Your task to perform on an android device: change the clock display to show seconds Image 0: 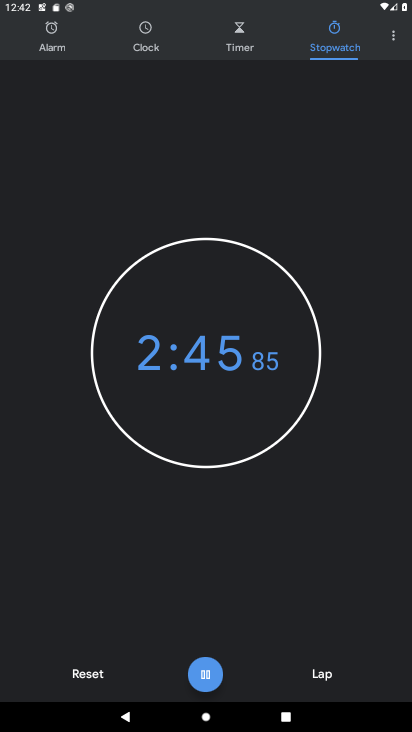
Step 0: press home button
Your task to perform on an android device: change the clock display to show seconds Image 1: 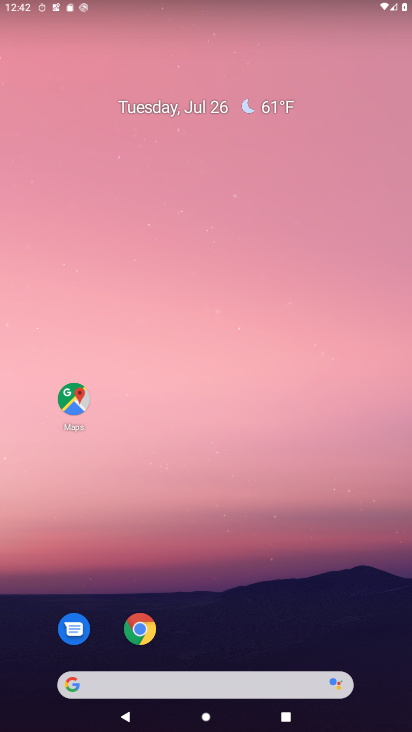
Step 1: drag from (236, 593) to (233, 145)
Your task to perform on an android device: change the clock display to show seconds Image 2: 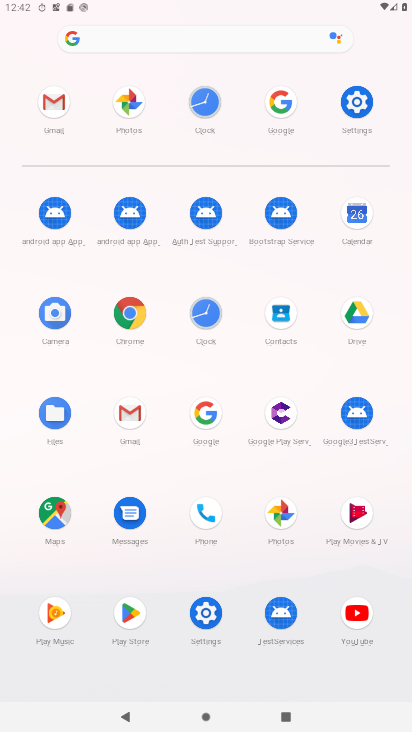
Step 2: click (214, 322)
Your task to perform on an android device: change the clock display to show seconds Image 3: 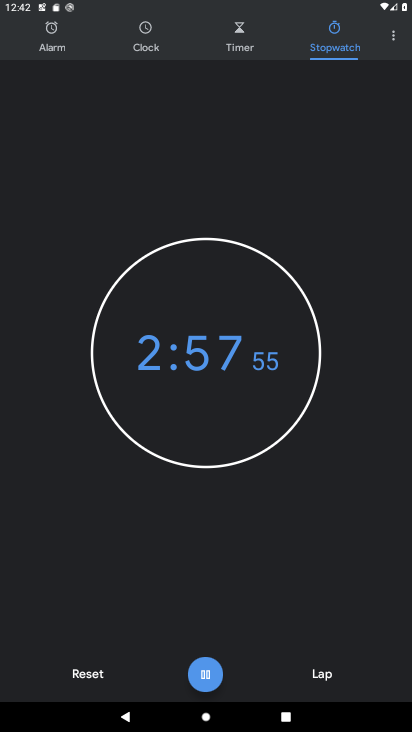
Step 3: click (398, 40)
Your task to perform on an android device: change the clock display to show seconds Image 4: 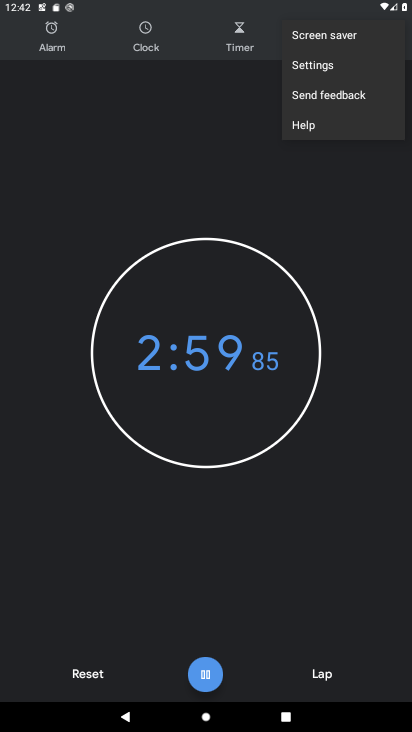
Step 4: click (345, 58)
Your task to perform on an android device: change the clock display to show seconds Image 5: 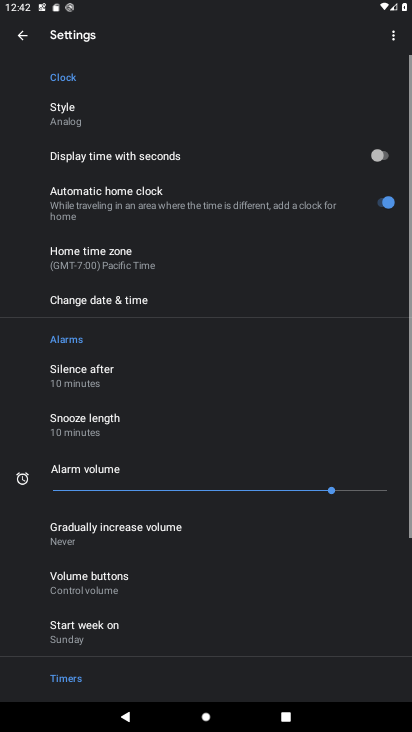
Step 5: click (391, 153)
Your task to perform on an android device: change the clock display to show seconds Image 6: 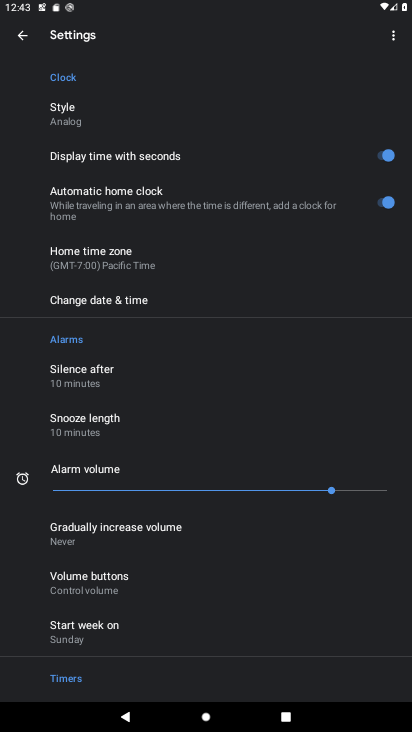
Step 6: click (147, 114)
Your task to perform on an android device: change the clock display to show seconds Image 7: 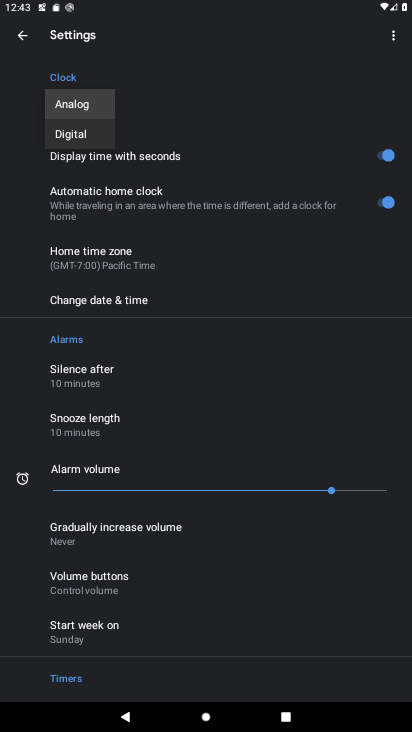
Step 7: task complete